Your task to perform on an android device: Open Youtube and go to "Your channel" Image 0: 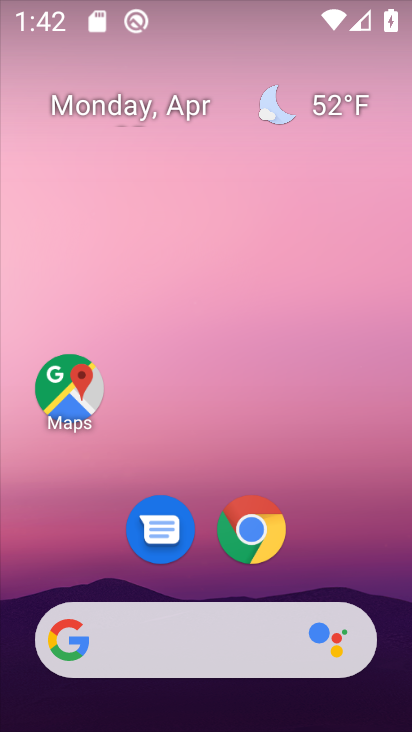
Step 0: drag from (384, 442) to (380, 274)
Your task to perform on an android device: Open Youtube and go to "Your channel" Image 1: 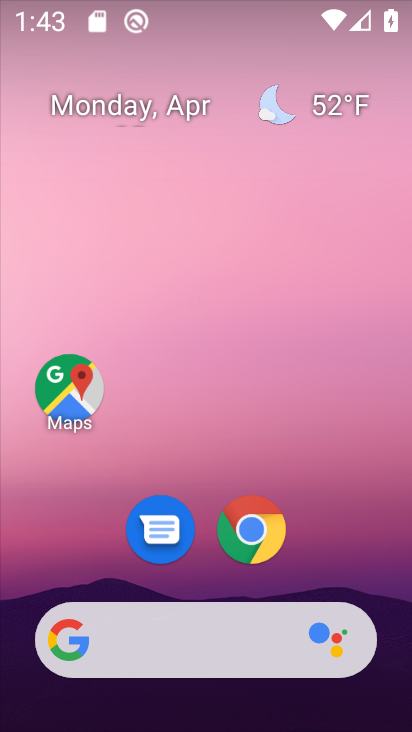
Step 1: drag from (407, 485) to (408, 341)
Your task to perform on an android device: Open Youtube and go to "Your channel" Image 2: 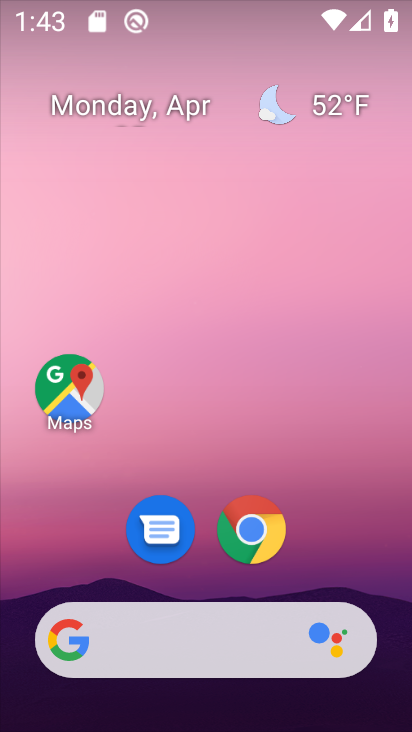
Step 2: drag from (371, 237) to (360, 188)
Your task to perform on an android device: Open Youtube and go to "Your channel" Image 3: 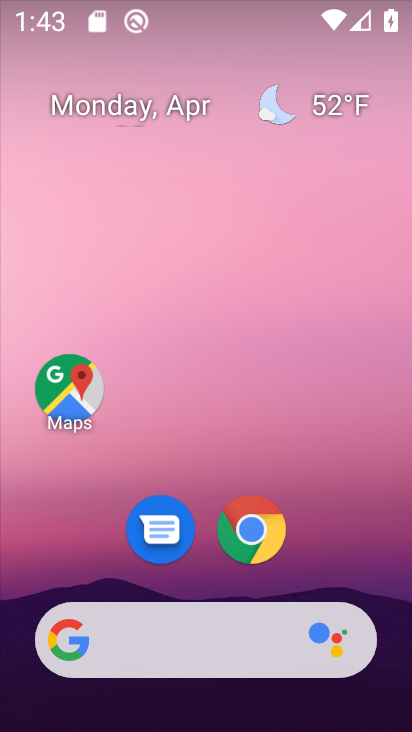
Step 3: drag from (395, 380) to (359, 168)
Your task to perform on an android device: Open Youtube and go to "Your channel" Image 4: 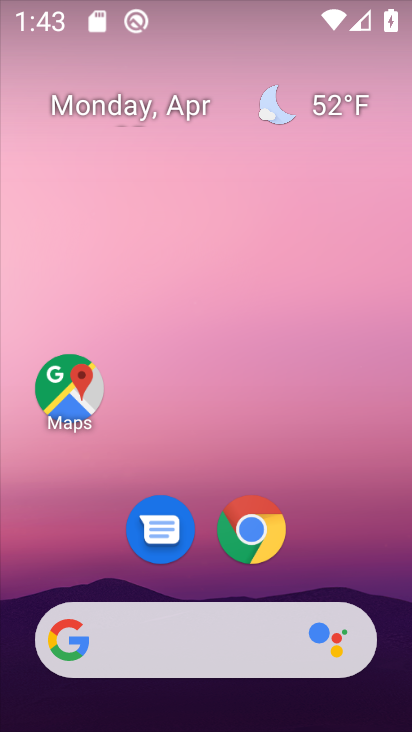
Step 4: drag from (392, 662) to (383, 187)
Your task to perform on an android device: Open Youtube and go to "Your channel" Image 5: 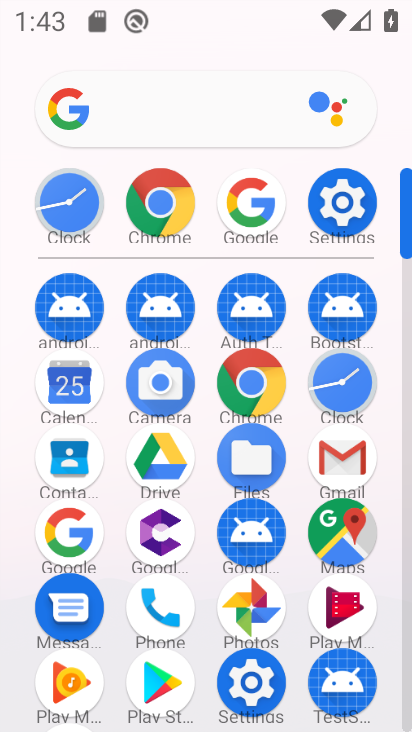
Step 5: drag from (408, 150) to (401, 67)
Your task to perform on an android device: Open Youtube and go to "Your channel" Image 6: 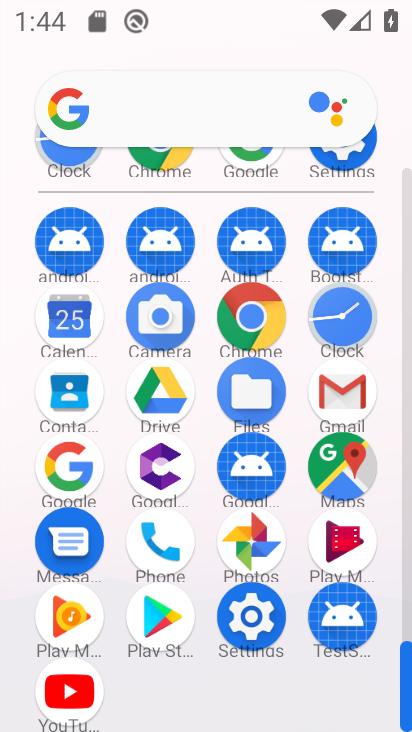
Step 6: click (75, 689)
Your task to perform on an android device: Open Youtube and go to "Your channel" Image 7: 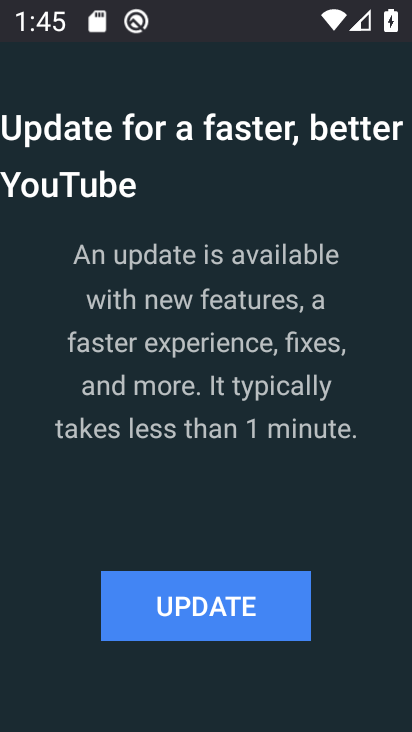
Step 7: click (237, 602)
Your task to perform on an android device: Open Youtube and go to "Your channel" Image 8: 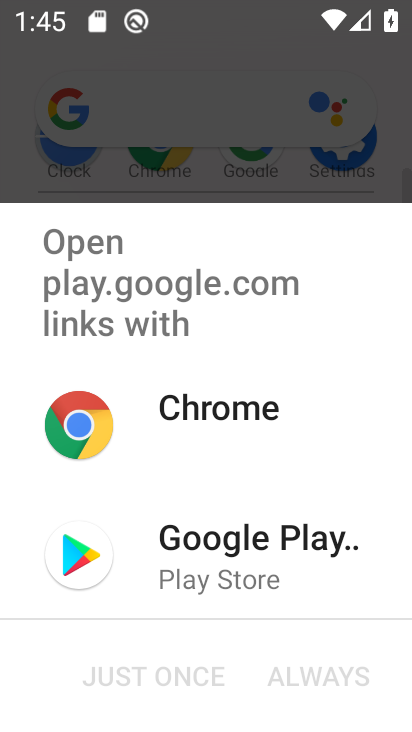
Step 8: click (182, 545)
Your task to perform on an android device: Open Youtube and go to "Your channel" Image 9: 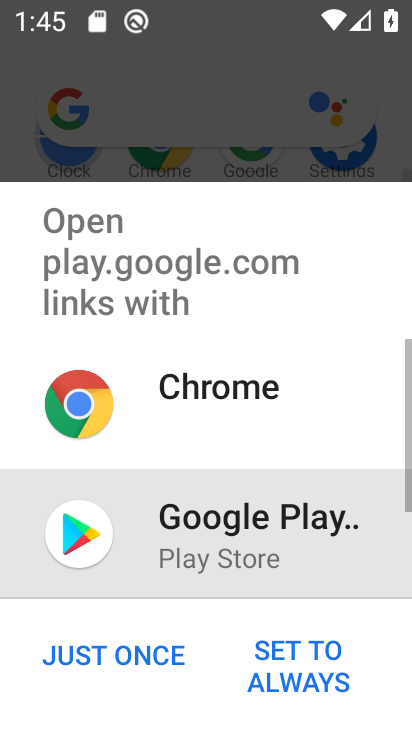
Step 9: click (128, 652)
Your task to perform on an android device: Open Youtube and go to "Your channel" Image 10: 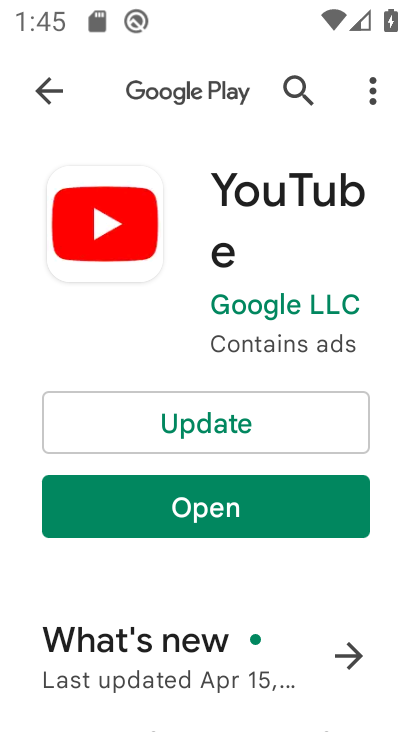
Step 10: click (179, 421)
Your task to perform on an android device: Open Youtube and go to "Your channel" Image 11: 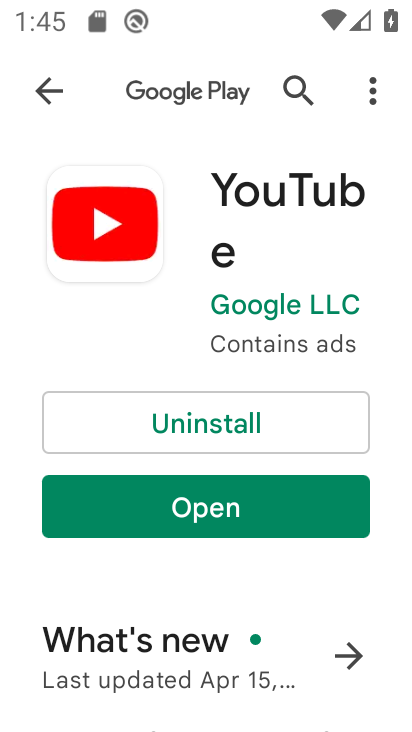
Step 11: click (222, 502)
Your task to perform on an android device: Open Youtube and go to "Your channel" Image 12: 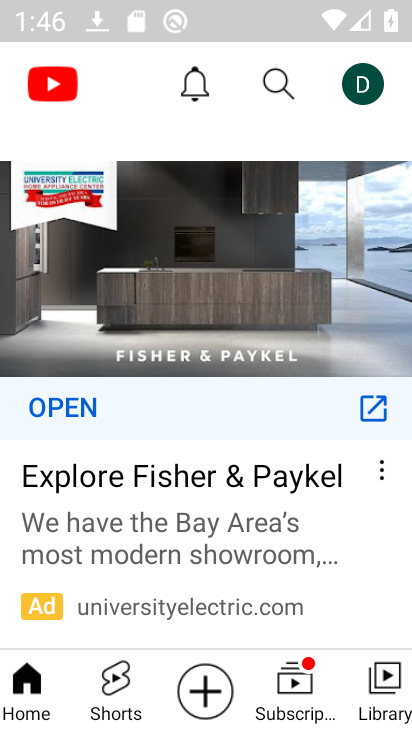
Step 12: click (357, 84)
Your task to perform on an android device: Open Youtube and go to "Your channel" Image 13: 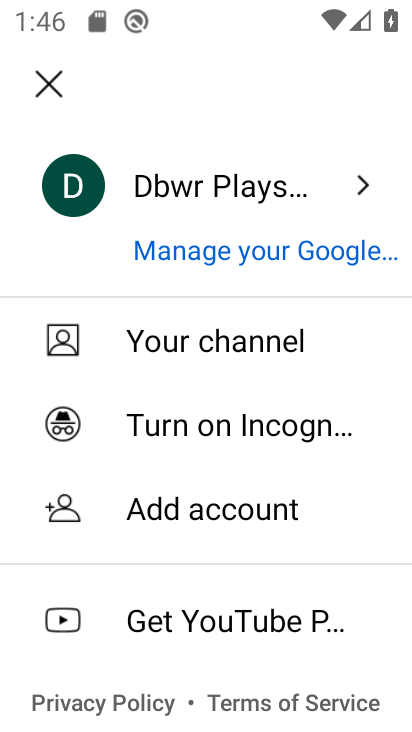
Step 13: click (160, 340)
Your task to perform on an android device: Open Youtube and go to "Your channel" Image 14: 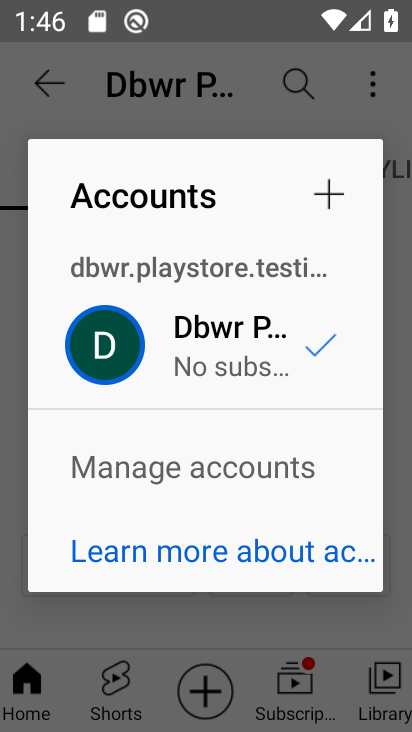
Step 14: task complete